Your task to perform on an android device: read, delete, or share a saved page in the chrome app Image 0: 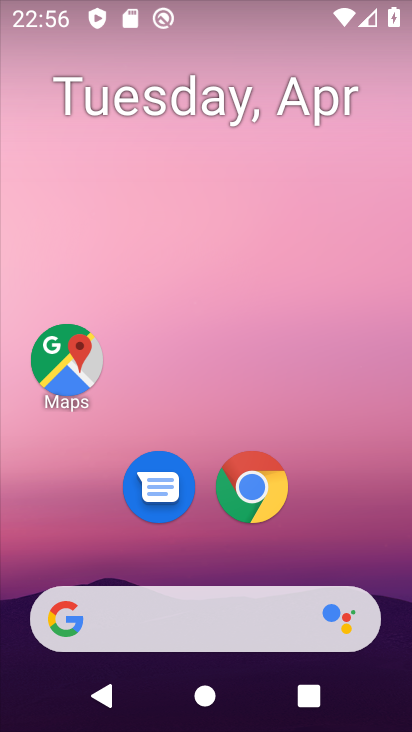
Step 0: click (259, 504)
Your task to perform on an android device: read, delete, or share a saved page in the chrome app Image 1: 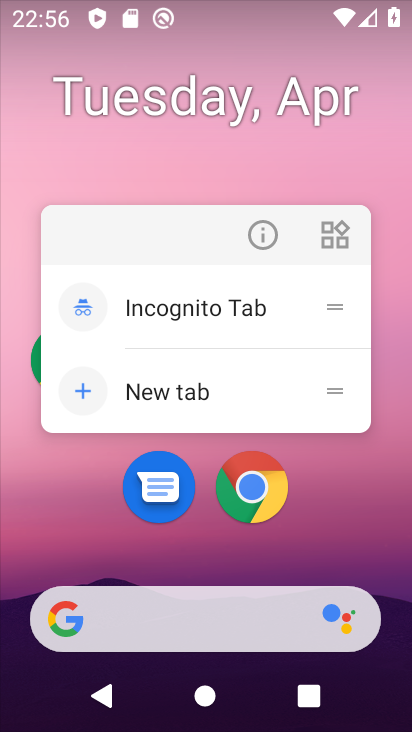
Step 1: click (276, 491)
Your task to perform on an android device: read, delete, or share a saved page in the chrome app Image 2: 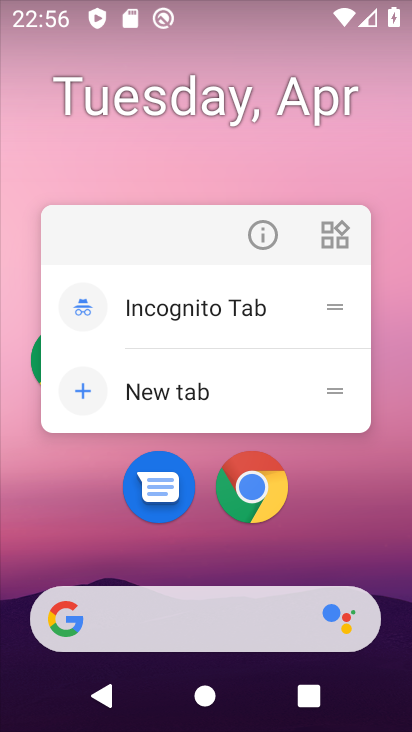
Step 2: click (276, 491)
Your task to perform on an android device: read, delete, or share a saved page in the chrome app Image 3: 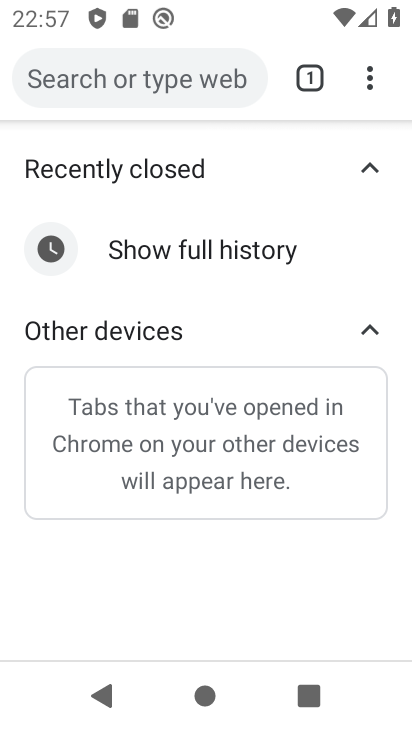
Step 3: task complete